Your task to perform on an android device: Go to wifi settings Image 0: 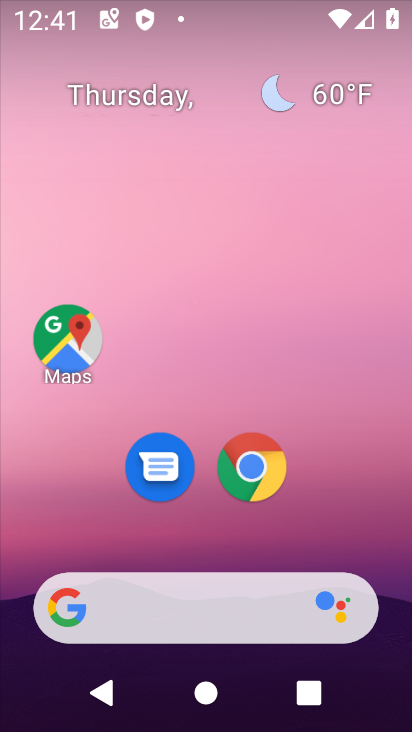
Step 0: drag from (194, 539) to (228, 0)
Your task to perform on an android device: Go to wifi settings Image 1: 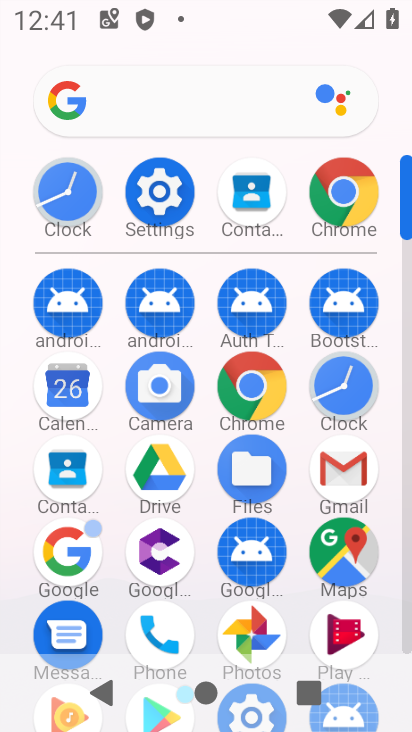
Step 1: click (158, 208)
Your task to perform on an android device: Go to wifi settings Image 2: 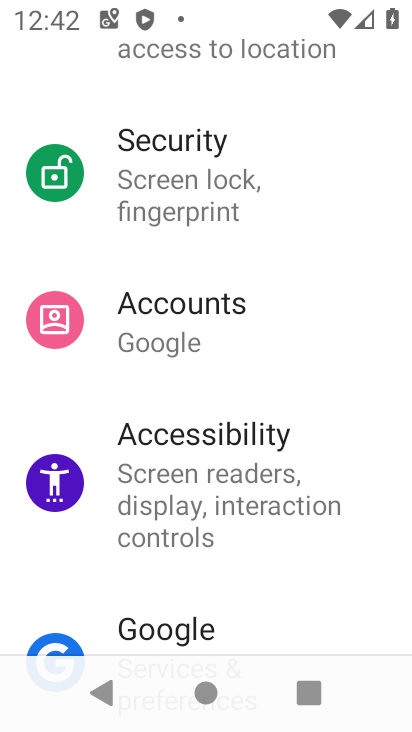
Step 2: drag from (208, 214) to (204, 634)
Your task to perform on an android device: Go to wifi settings Image 3: 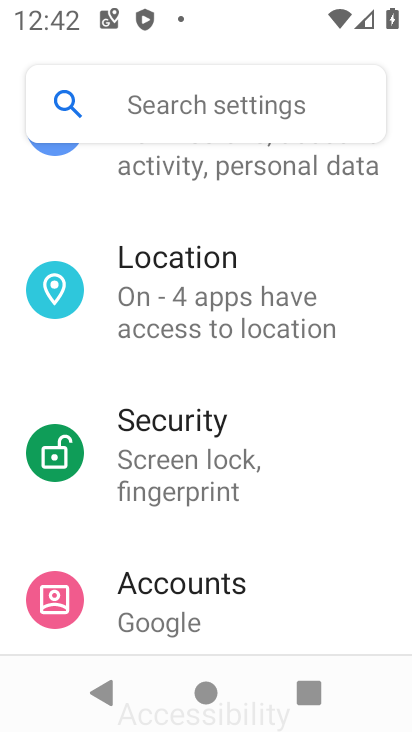
Step 3: drag from (264, 245) to (241, 631)
Your task to perform on an android device: Go to wifi settings Image 4: 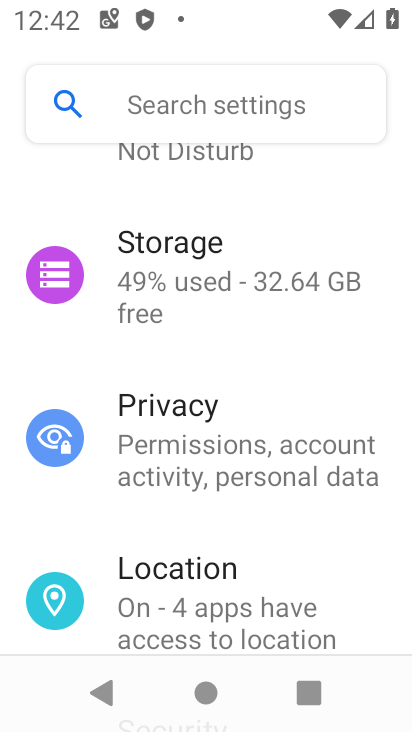
Step 4: drag from (255, 260) to (271, 730)
Your task to perform on an android device: Go to wifi settings Image 5: 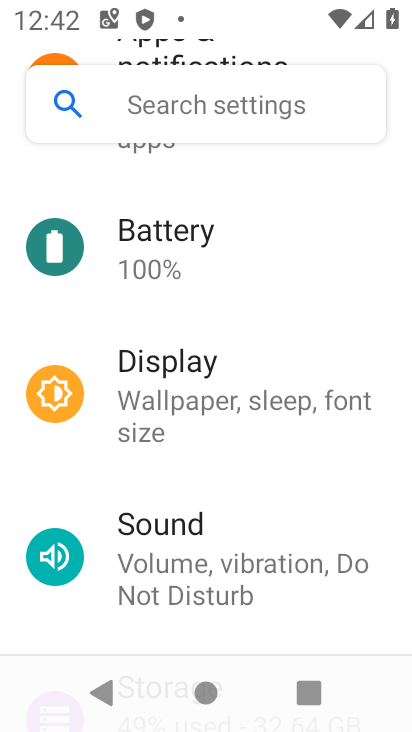
Step 5: drag from (259, 203) to (245, 595)
Your task to perform on an android device: Go to wifi settings Image 6: 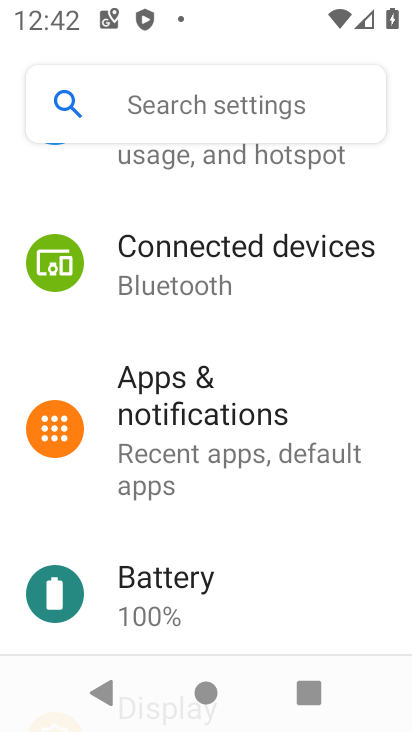
Step 6: drag from (265, 282) to (253, 724)
Your task to perform on an android device: Go to wifi settings Image 7: 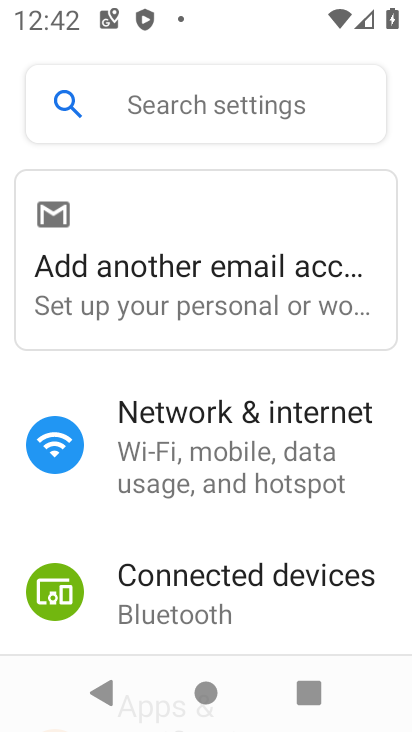
Step 7: click (231, 471)
Your task to perform on an android device: Go to wifi settings Image 8: 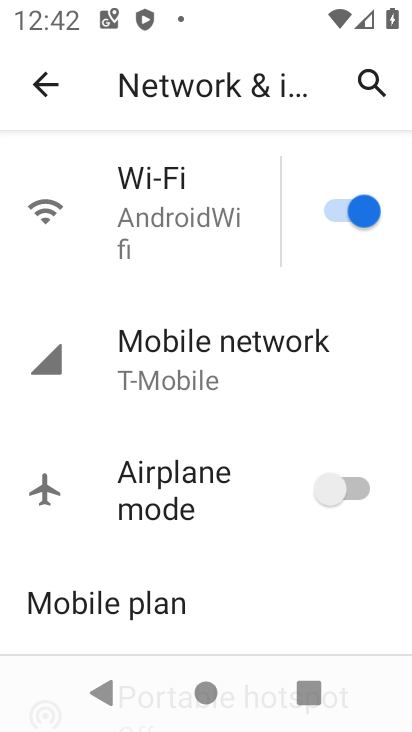
Step 8: drag from (189, 479) to (219, 324)
Your task to perform on an android device: Go to wifi settings Image 9: 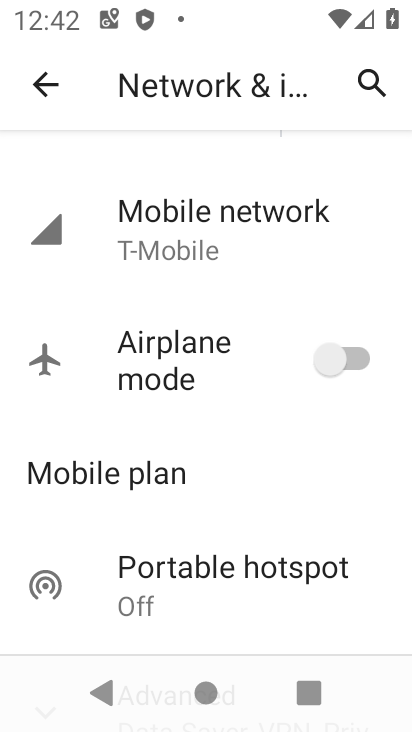
Step 9: drag from (166, 181) to (163, 316)
Your task to perform on an android device: Go to wifi settings Image 10: 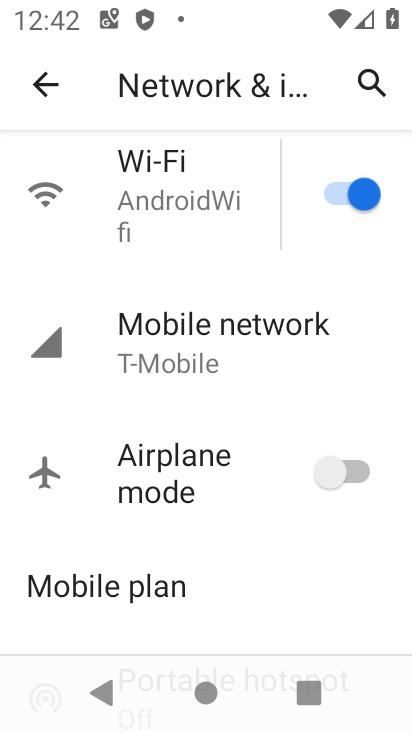
Step 10: click (143, 201)
Your task to perform on an android device: Go to wifi settings Image 11: 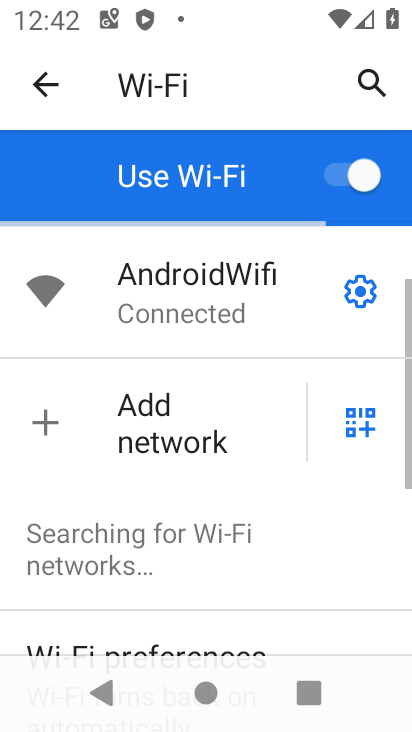
Step 11: task complete